Your task to perform on an android device: Search for Mexican restaurants on Maps Image 0: 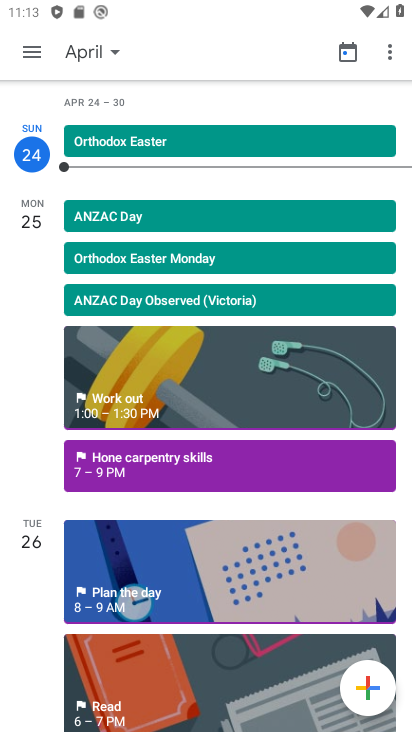
Step 0: press home button
Your task to perform on an android device: Search for Mexican restaurants on Maps Image 1: 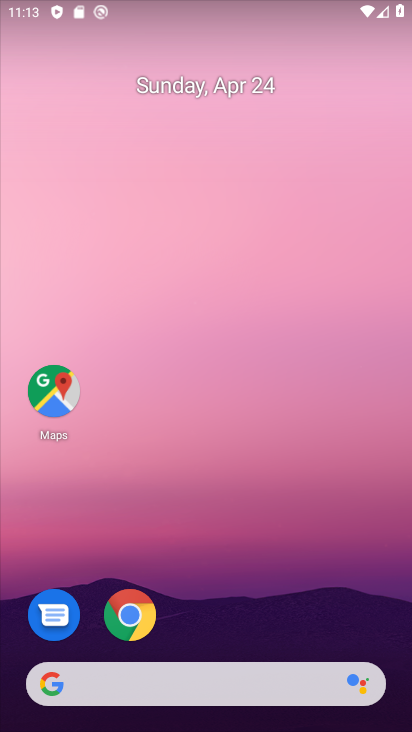
Step 1: drag from (224, 480) to (244, 57)
Your task to perform on an android device: Search for Mexican restaurants on Maps Image 2: 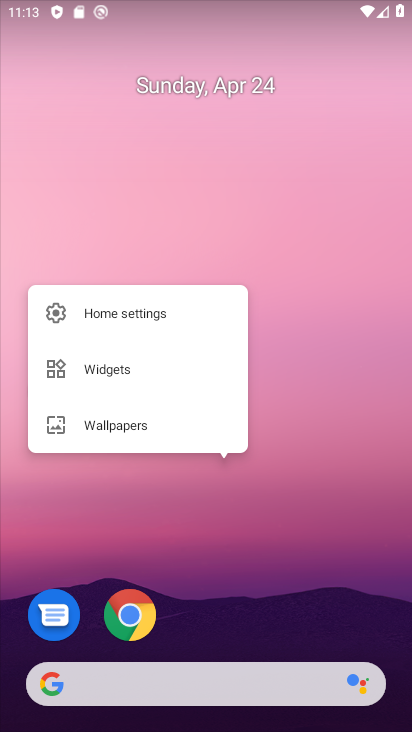
Step 2: click (273, 495)
Your task to perform on an android device: Search for Mexican restaurants on Maps Image 3: 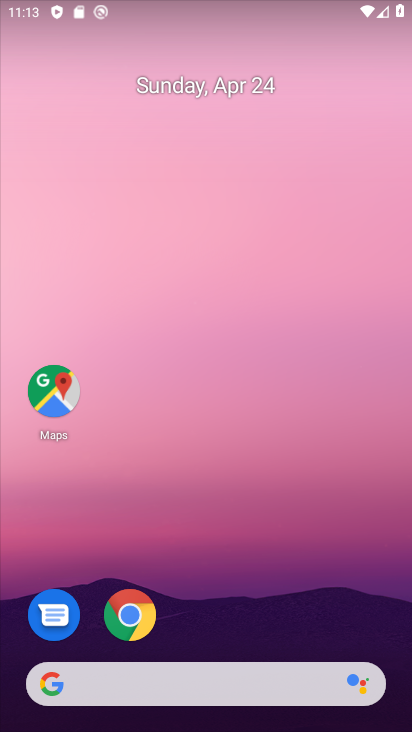
Step 3: click (46, 401)
Your task to perform on an android device: Search for Mexican restaurants on Maps Image 4: 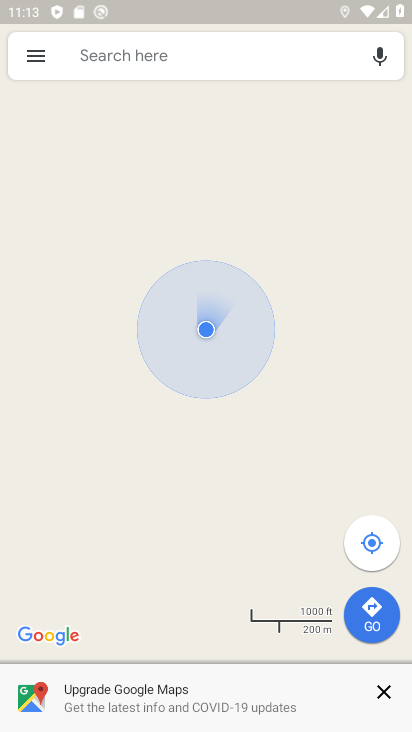
Step 4: click (260, 61)
Your task to perform on an android device: Search for Mexican restaurants on Maps Image 5: 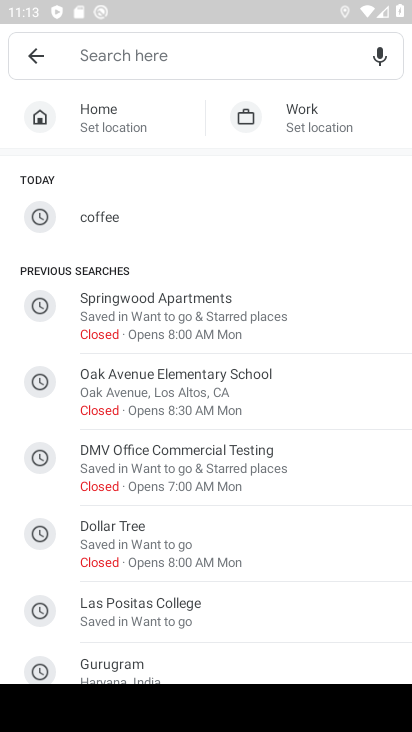
Step 5: type "nexican"
Your task to perform on an android device: Search for Mexican restaurants on Maps Image 6: 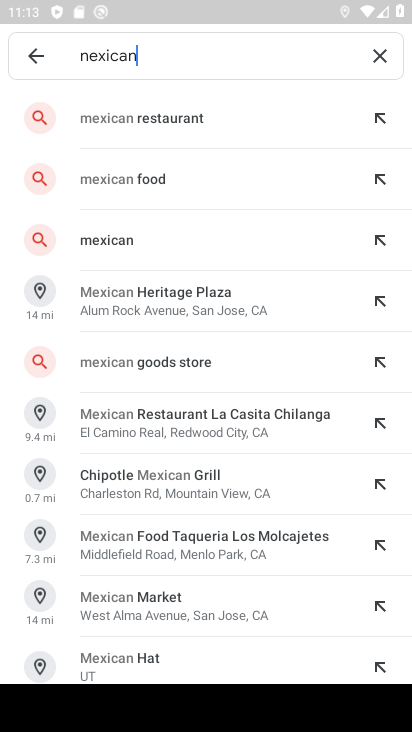
Step 6: click (211, 115)
Your task to perform on an android device: Search for Mexican restaurants on Maps Image 7: 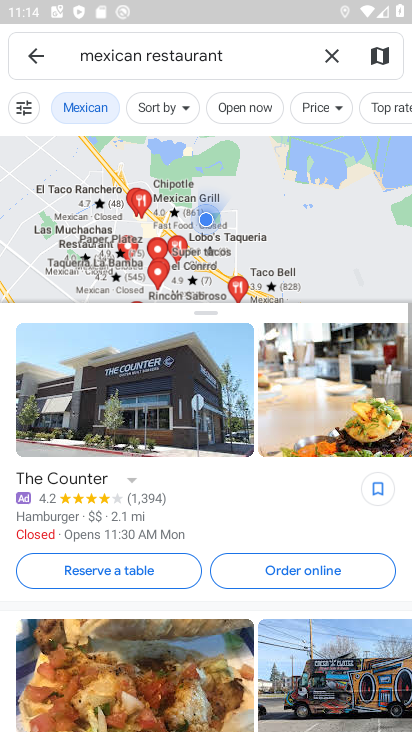
Step 7: task complete